Your task to perform on an android device: find which apps use the phone's location Image 0: 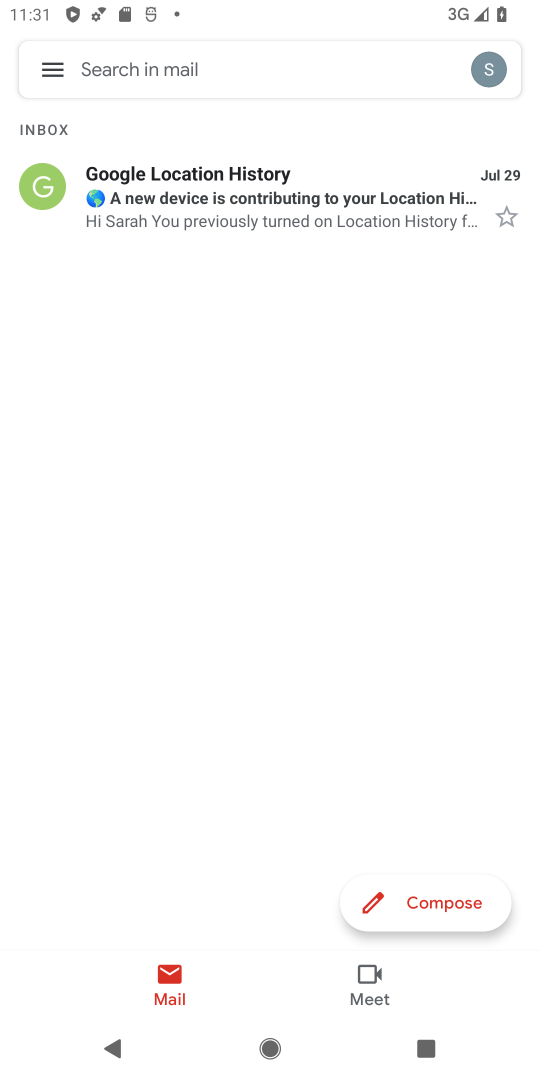
Step 0: press home button
Your task to perform on an android device: find which apps use the phone's location Image 1: 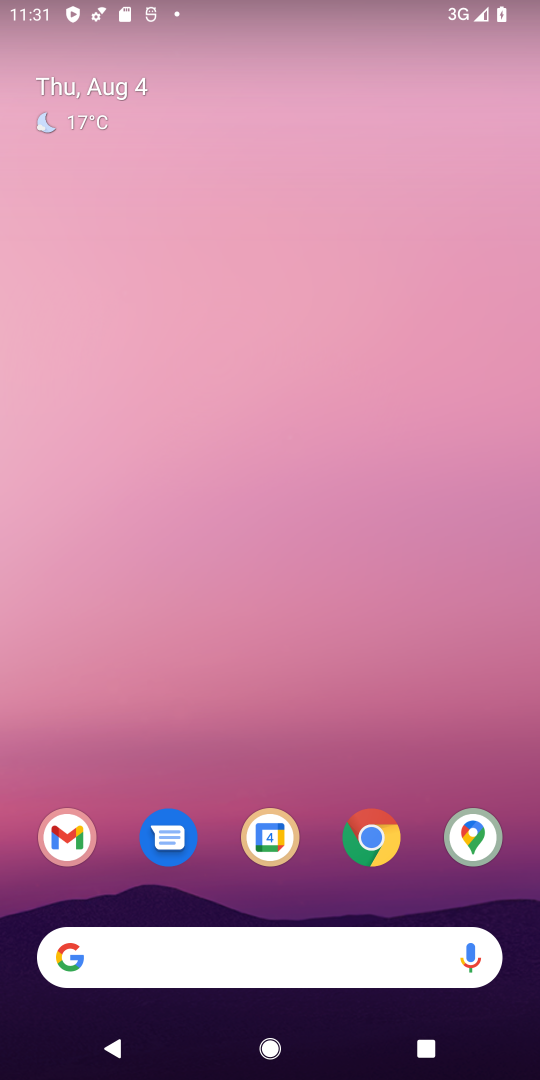
Step 1: drag from (439, 864) to (257, 19)
Your task to perform on an android device: find which apps use the phone's location Image 2: 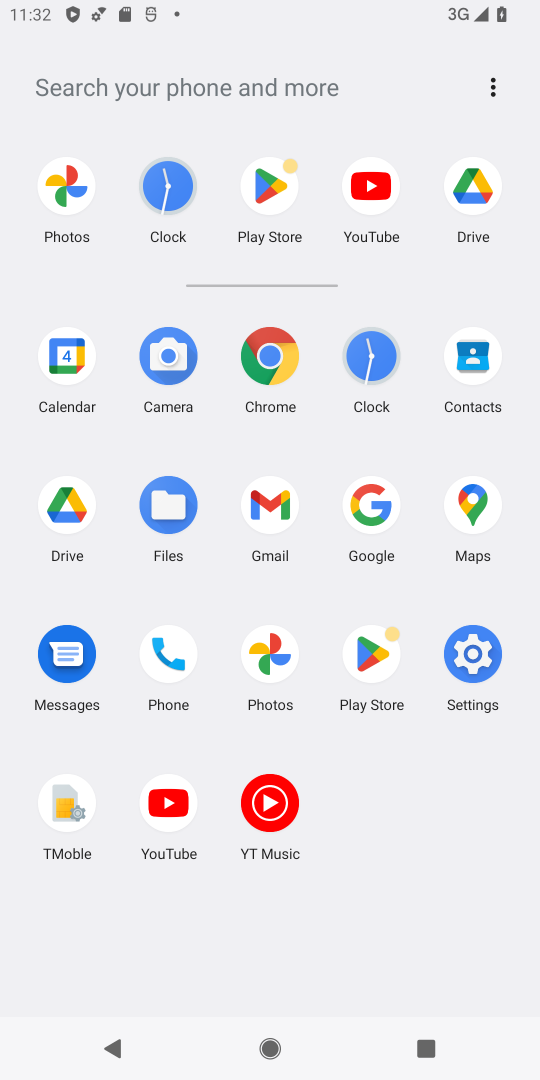
Step 2: click (459, 660)
Your task to perform on an android device: find which apps use the phone's location Image 3: 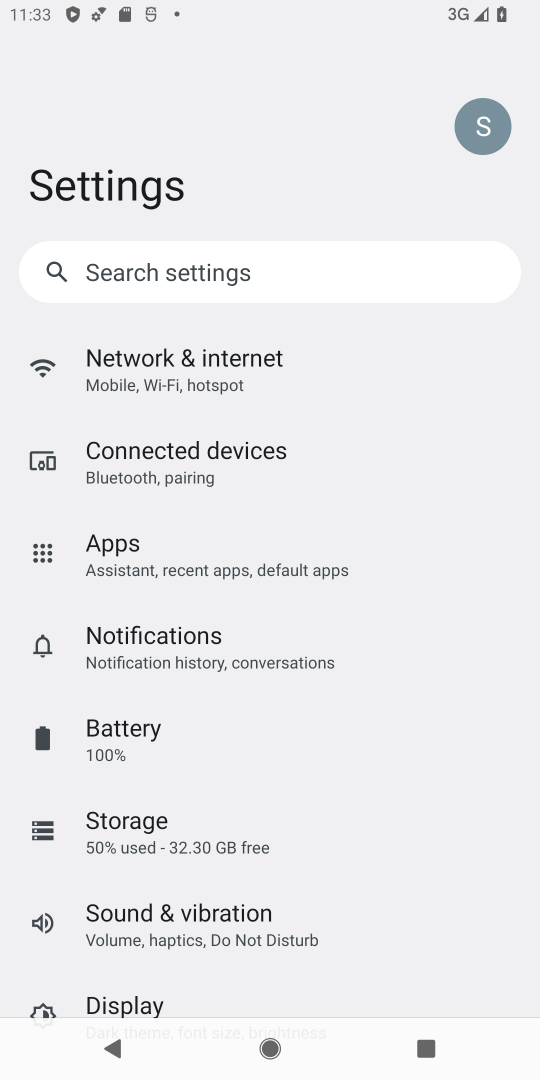
Step 3: drag from (179, 915) to (118, 422)
Your task to perform on an android device: find which apps use the phone's location Image 4: 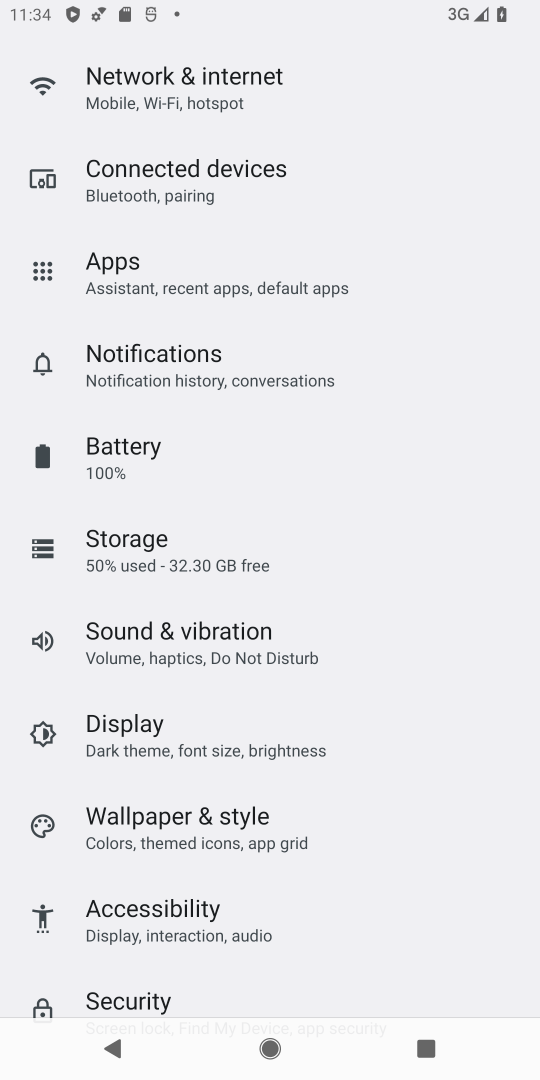
Step 4: drag from (141, 970) to (175, 379)
Your task to perform on an android device: find which apps use the phone's location Image 5: 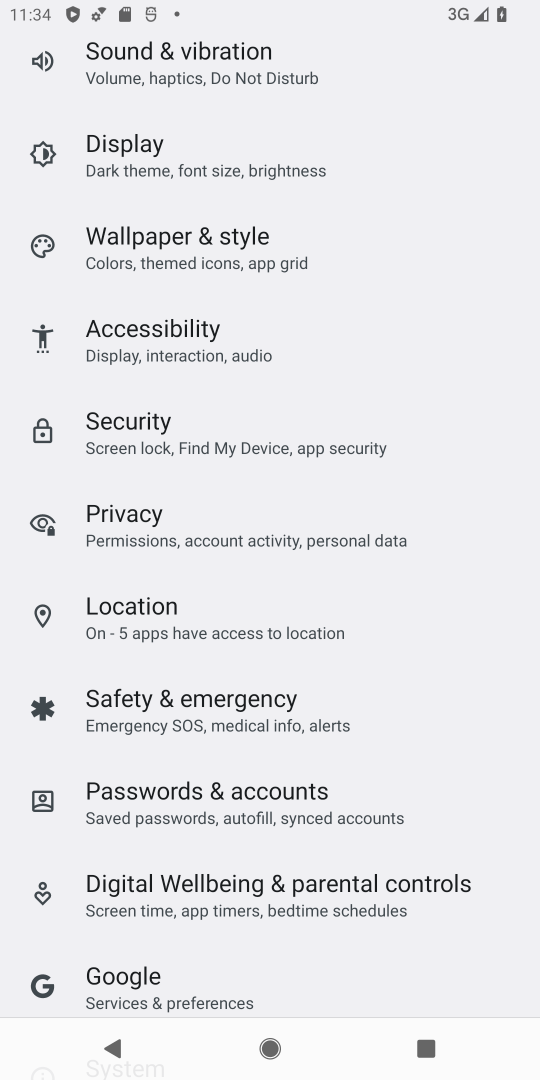
Step 5: click (144, 634)
Your task to perform on an android device: find which apps use the phone's location Image 6: 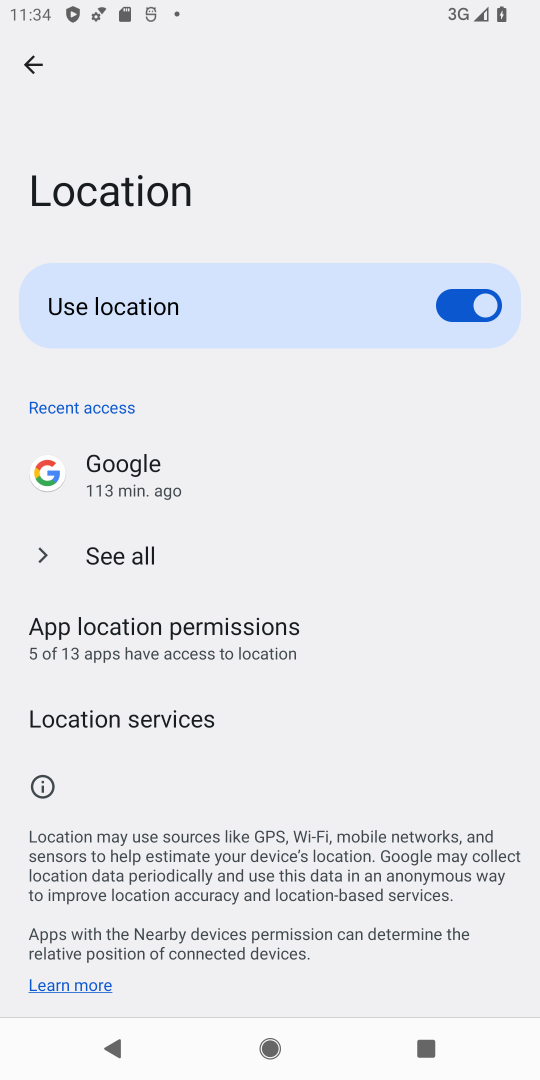
Step 6: click (118, 646)
Your task to perform on an android device: find which apps use the phone's location Image 7: 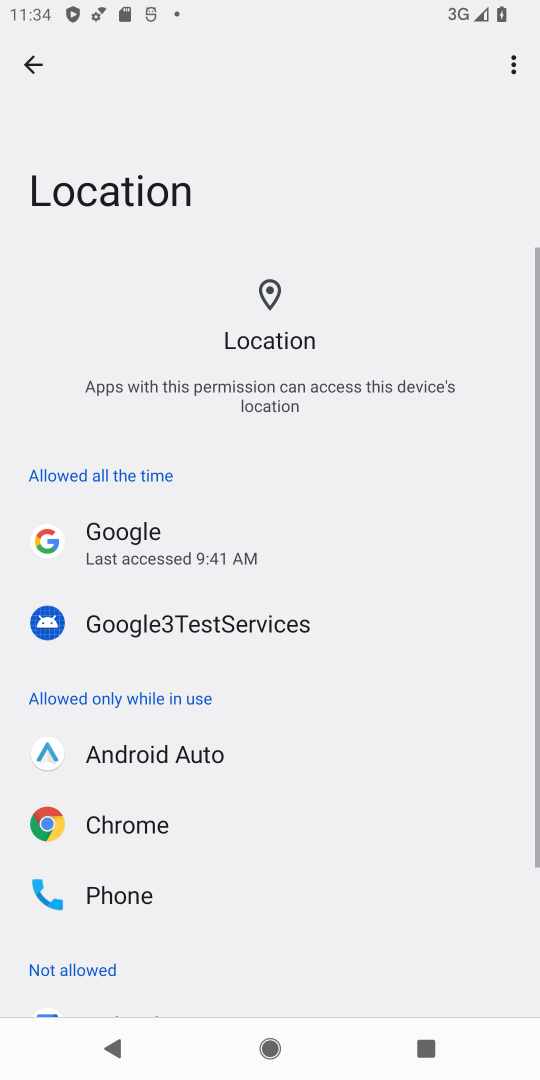
Step 7: click (148, 901)
Your task to perform on an android device: find which apps use the phone's location Image 8: 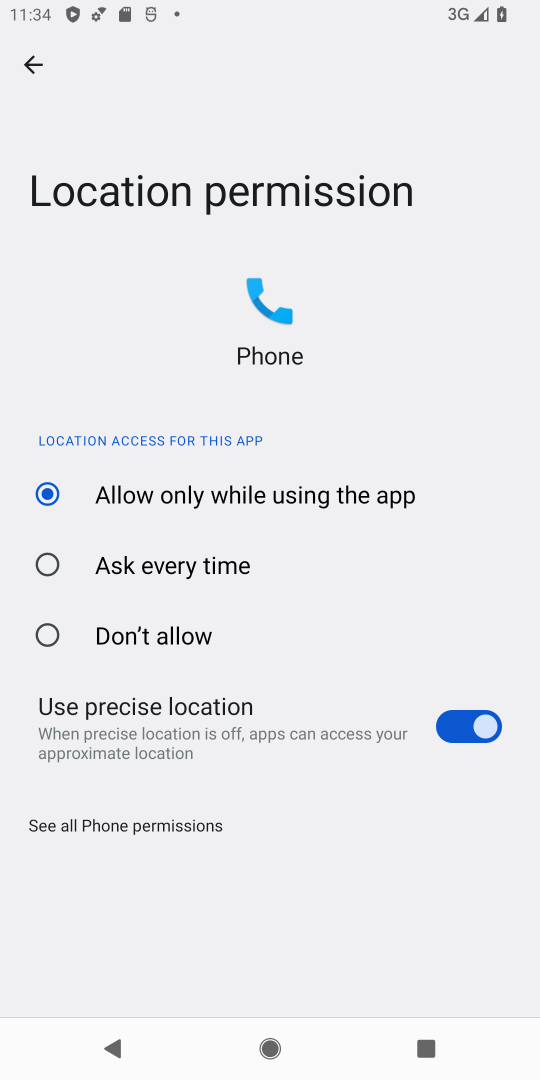
Step 8: task complete